Your task to perform on an android device: Open the stopwatch Image 0: 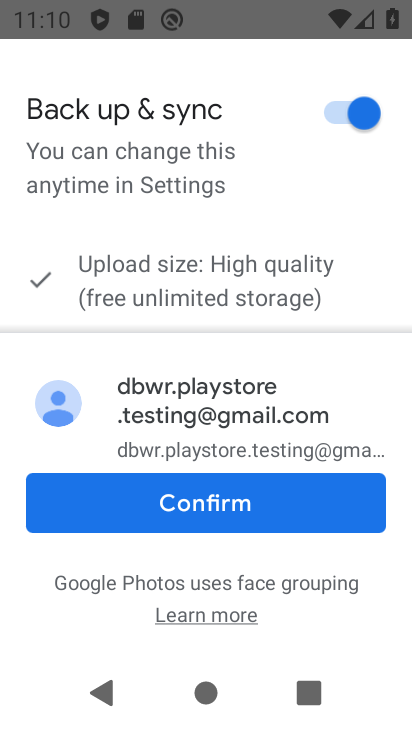
Step 0: press back button
Your task to perform on an android device: Open the stopwatch Image 1: 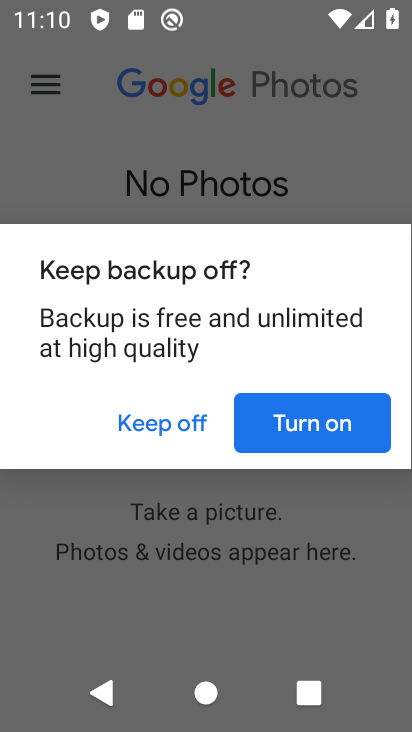
Step 1: press back button
Your task to perform on an android device: Open the stopwatch Image 2: 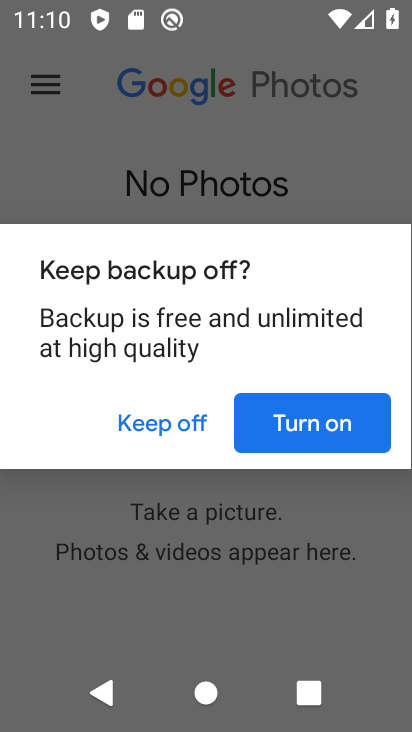
Step 2: press home button
Your task to perform on an android device: Open the stopwatch Image 3: 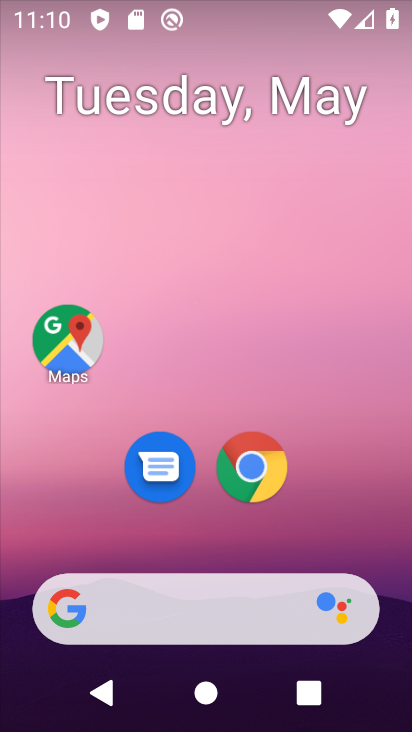
Step 3: drag from (367, 490) to (229, 3)
Your task to perform on an android device: Open the stopwatch Image 4: 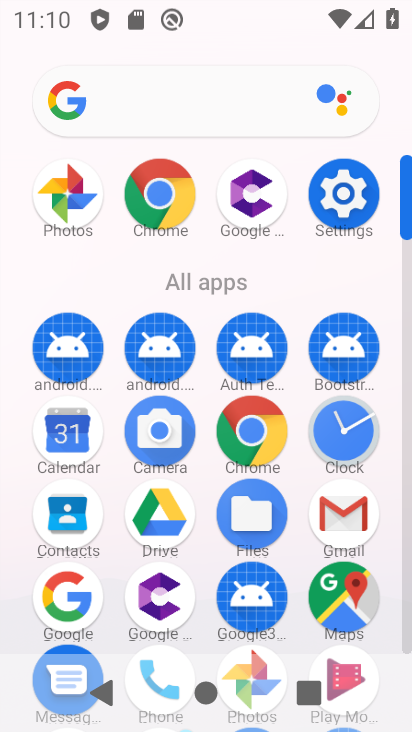
Step 4: click (344, 423)
Your task to perform on an android device: Open the stopwatch Image 5: 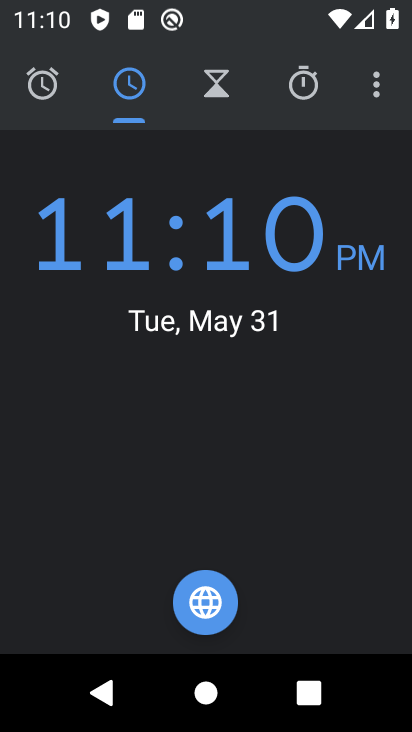
Step 5: click (307, 74)
Your task to perform on an android device: Open the stopwatch Image 6: 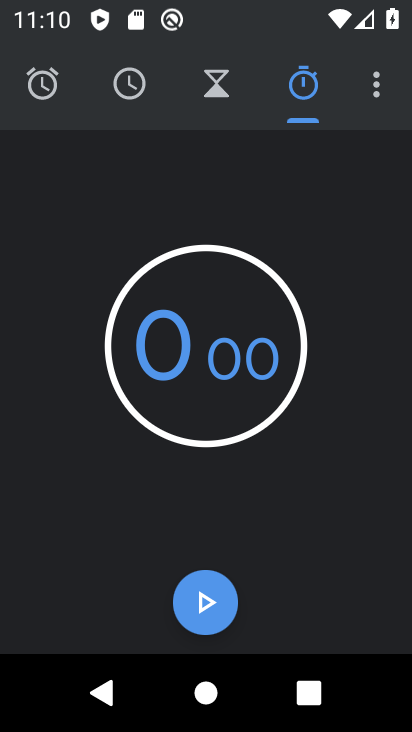
Step 6: click (209, 600)
Your task to perform on an android device: Open the stopwatch Image 7: 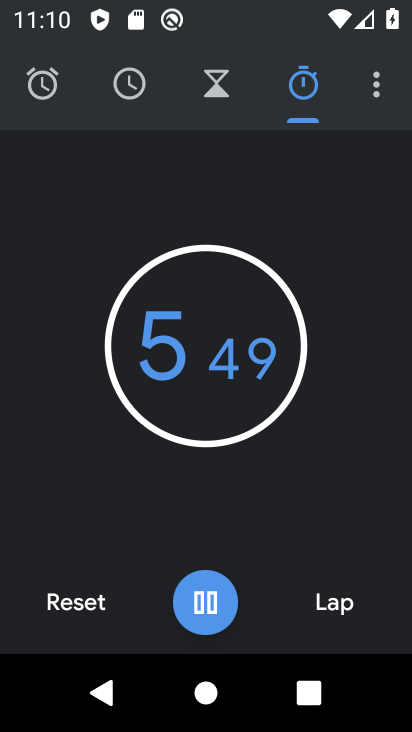
Step 7: task complete